Your task to perform on an android device: change alarm snooze length Image 0: 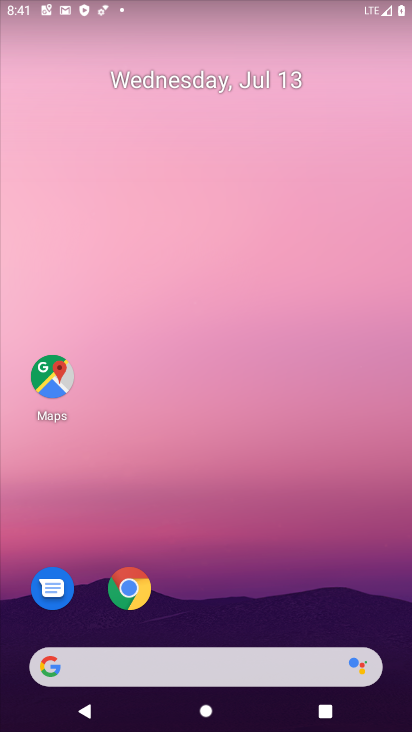
Step 0: drag from (209, 606) to (207, 257)
Your task to perform on an android device: change alarm snooze length Image 1: 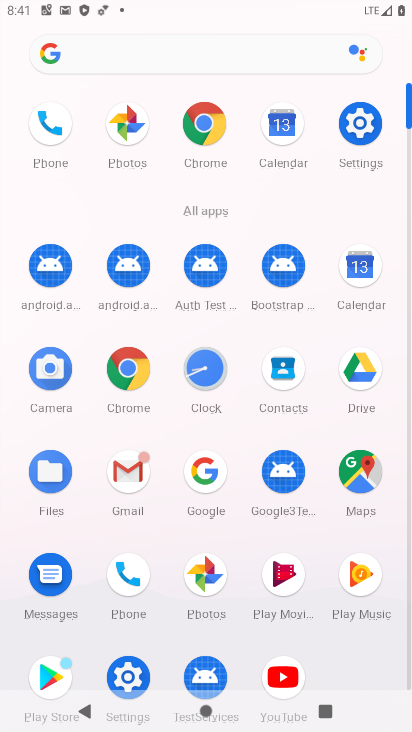
Step 1: click (198, 360)
Your task to perform on an android device: change alarm snooze length Image 2: 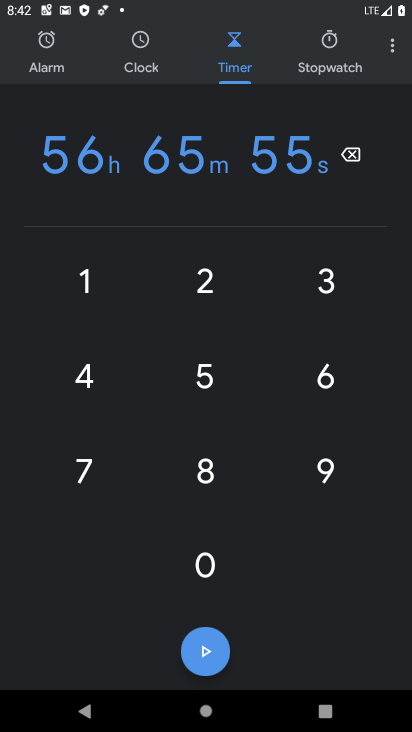
Step 2: click (394, 44)
Your task to perform on an android device: change alarm snooze length Image 3: 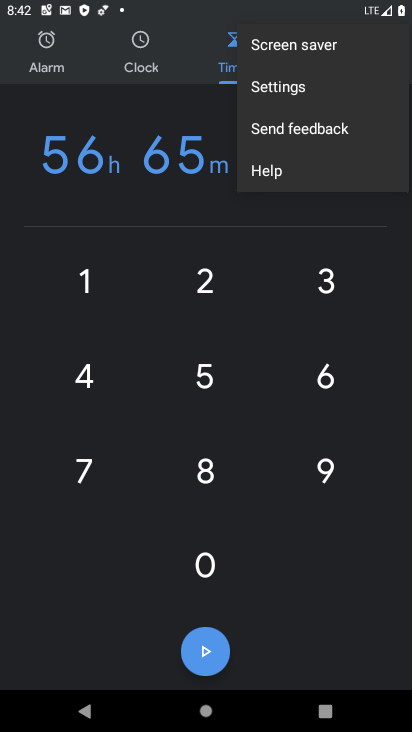
Step 3: click (324, 87)
Your task to perform on an android device: change alarm snooze length Image 4: 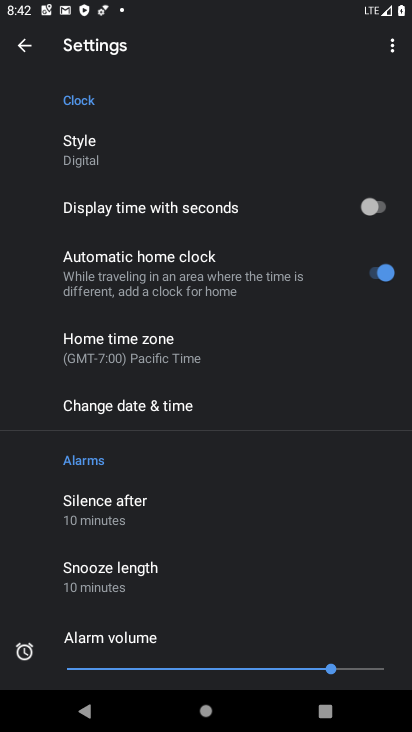
Step 4: click (156, 565)
Your task to perform on an android device: change alarm snooze length Image 5: 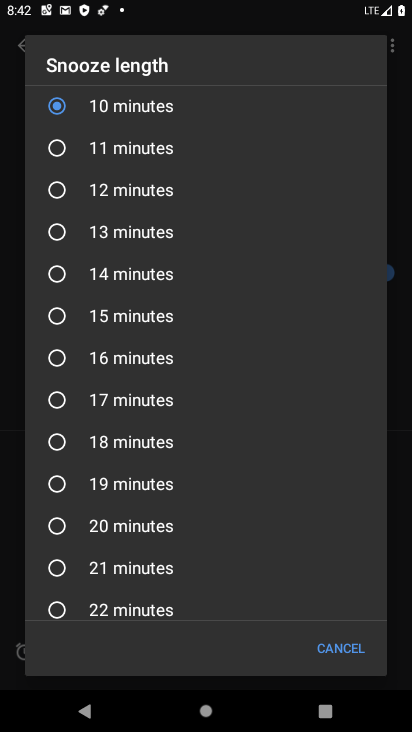
Step 5: click (109, 527)
Your task to perform on an android device: change alarm snooze length Image 6: 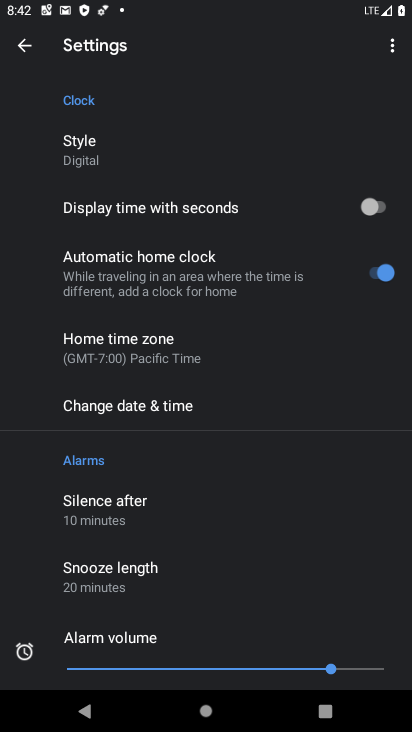
Step 6: task complete